Your task to perform on an android device: Open Google Maps Image 0: 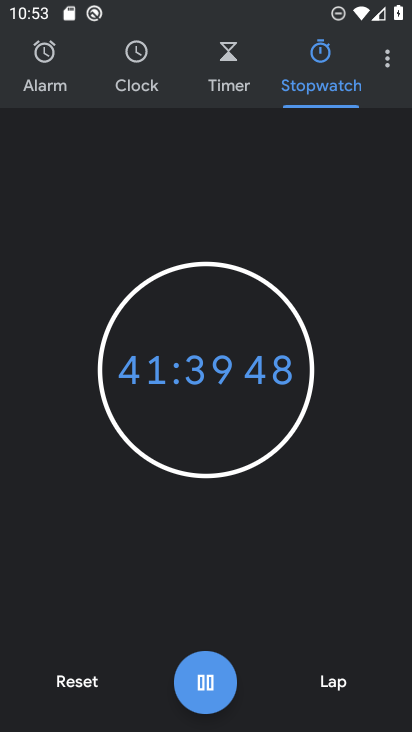
Step 0: press home button
Your task to perform on an android device: Open Google Maps Image 1: 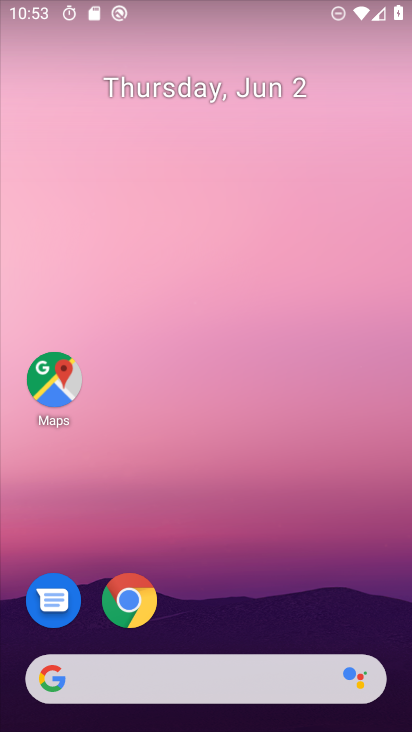
Step 1: click (54, 382)
Your task to perform on an android device: Open Google Maps Image 2: 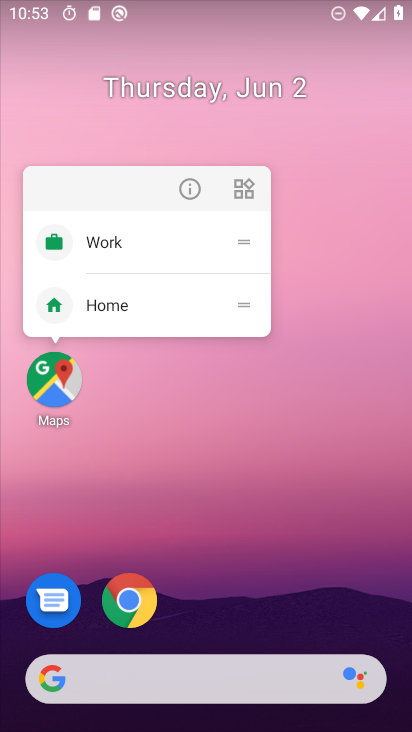
Step 2: click (54, 382)
Your task to perform on an android device: Open Google Maps Image 3: 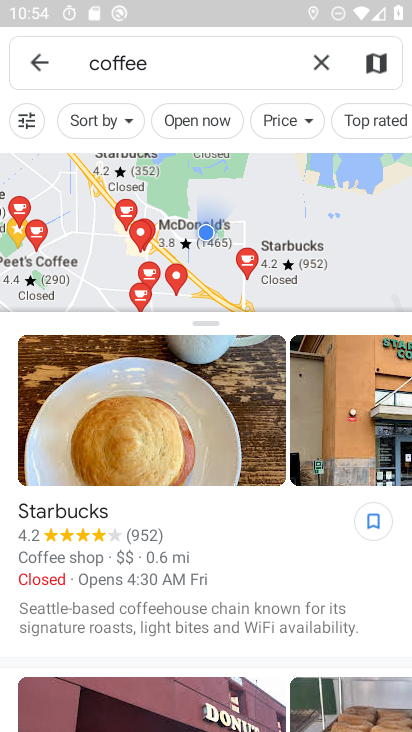
Step 3: task complete